Your task to perform on an android device: turn on improve location accuracy Image 0: 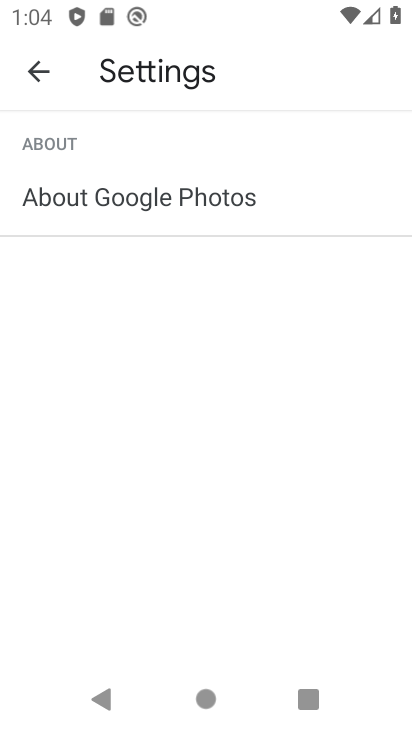
Step 0: press home button
Your task to perform on an android device: turn on improve location accuracy Image 1: 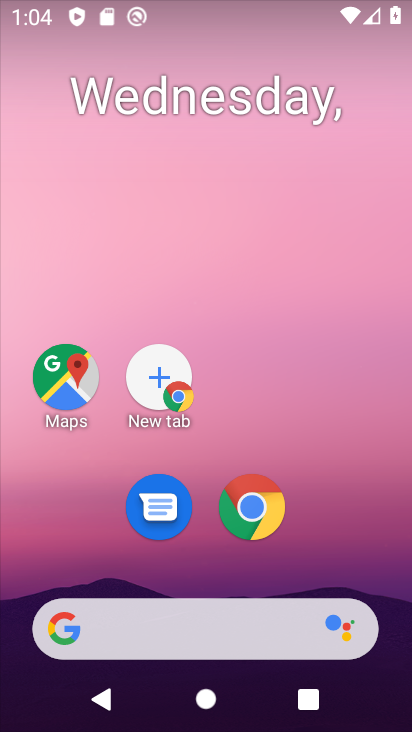
Step 1: drag from (348, 543) to (402, 33)
Your task to perform on an android device: turn on improve location accuracy Image 2: 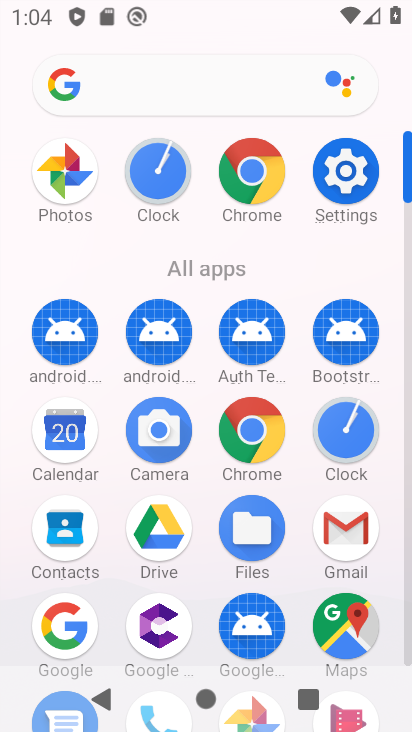
Step 2: click (334, 179)
Your task to perform on an android device: turn on improve location accuracy Image 3: 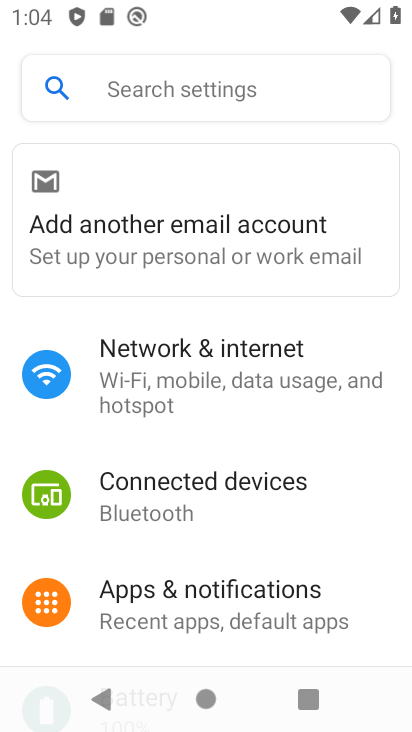
Step 3: drag from (314, 555) to (379, 255)
Your task to perform on an android device: turn on improve location accuracy Image 4: 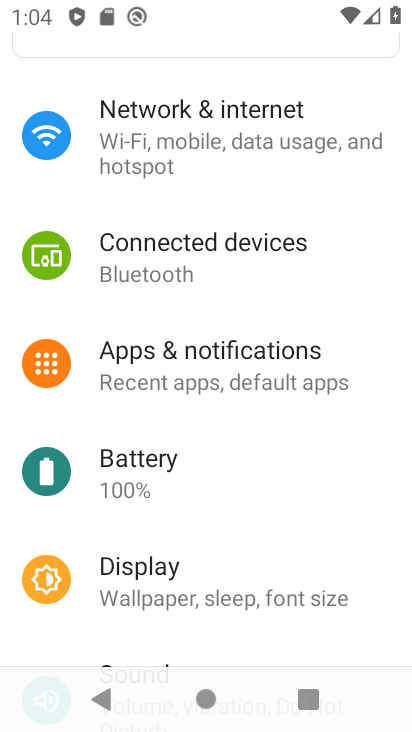
Step 4: drag from (297, 543) to (356, 206)
Your task to perform on an android device: turn on improve location accuracy Image 5: 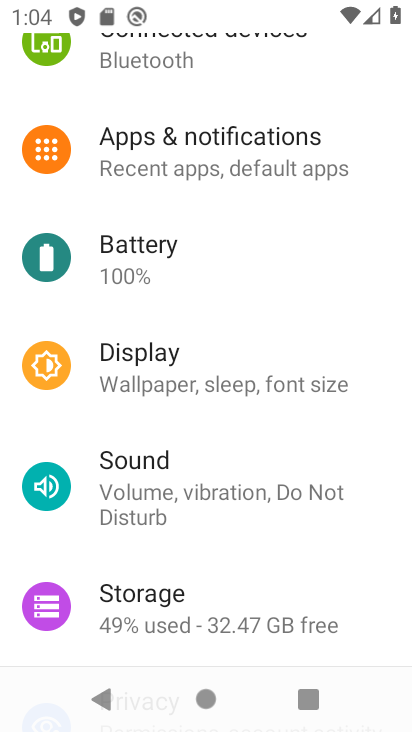
Step 5: drag from (260, 565) to (293, 184)
Your task to perform on an android device: turn on improve location accuracy Image 6: 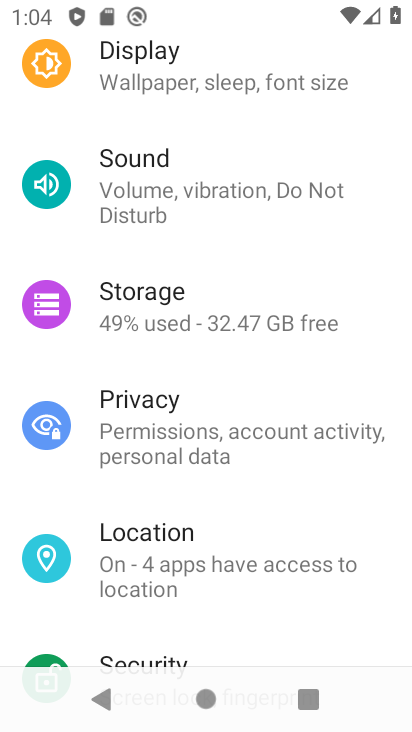
Step 6: click (153, 538)
Your task to perform on an android device: turn on improve location accuracy Image 7: 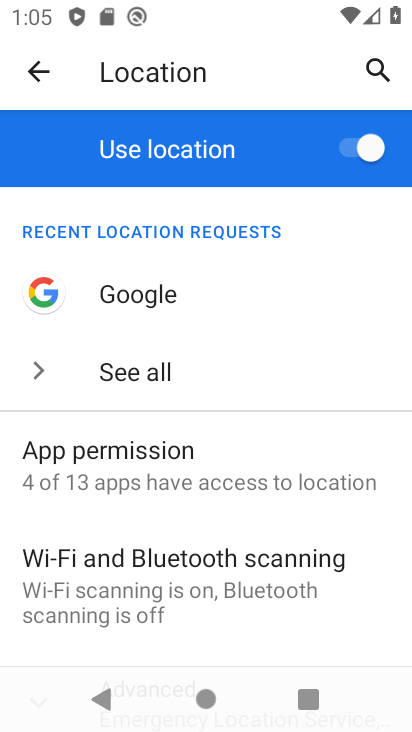
Step 7: drag from (216, 580) to (330, 251)
Your task to perform on an android device: turn on improve location accuracy Image 8: 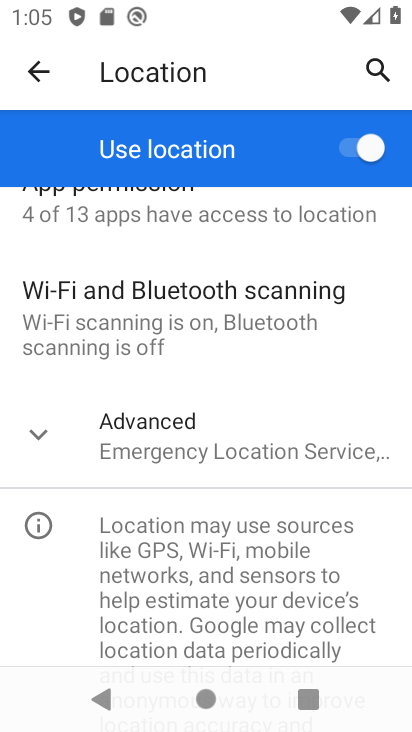
Step 8: drag from (275, 582) to (398, 227)
Your task to perform on an android device: turn on improve location accuracy Image 9: 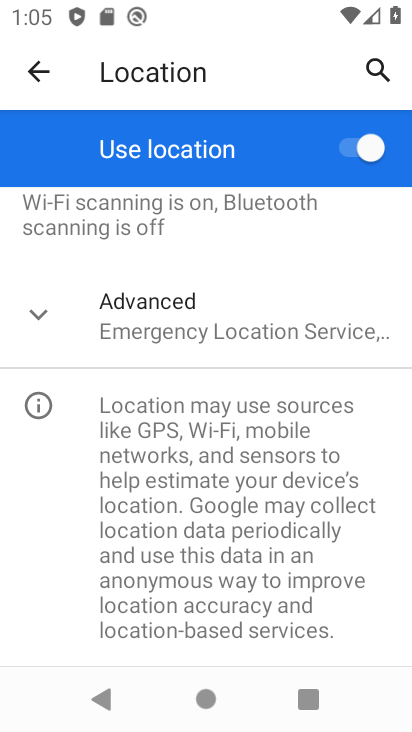
Step 9: click (251, 338)
Your task to perform on an android device: turn on improve location accuracy Image 10: 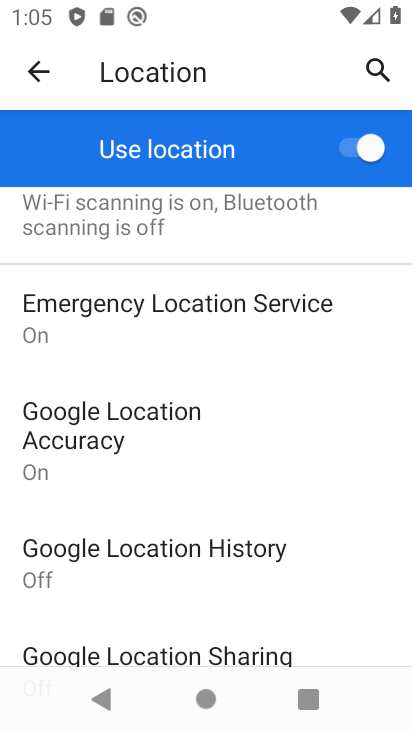
Step 10: drag from (242, 588) to (280, 386)
Your task to perform on an android device: turn on improve location accuracy Image 11: 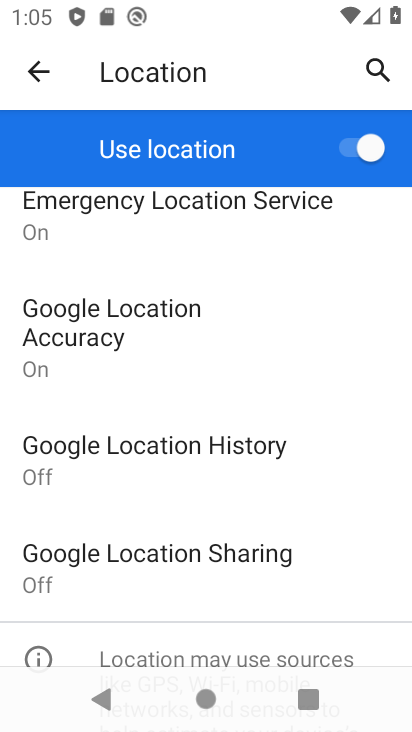
Step 11: click (84, 336)
Your task to perform on an android device: turn on improve location accuracy Image 12: 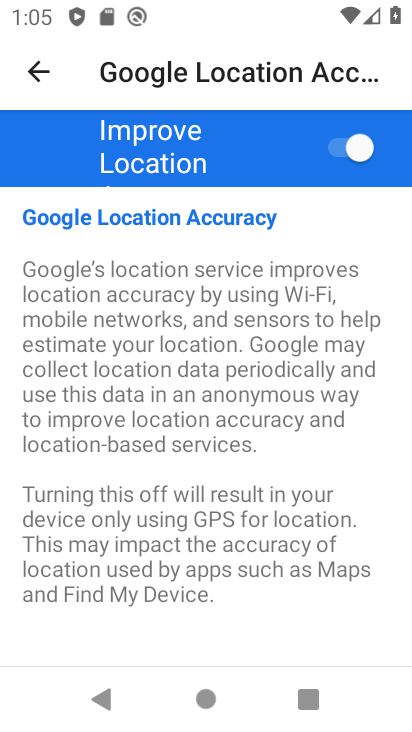
Step 12: task complete